Your task to perform on an android device: Open Google Chrome Image 0: 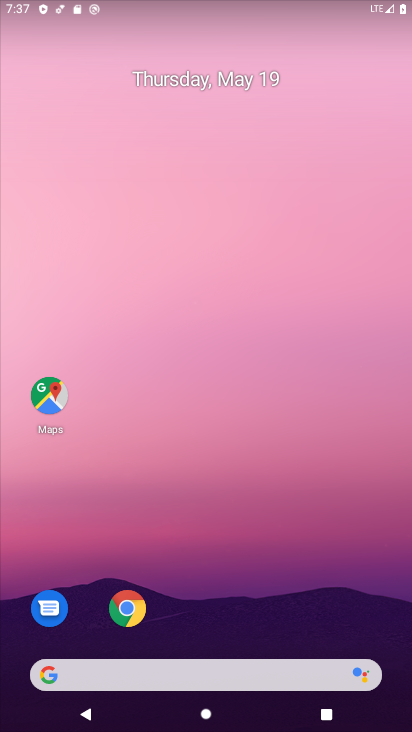
Step 0: click (129, 602)
Your task to perform on an android device: Open Google Chrome Image 1: 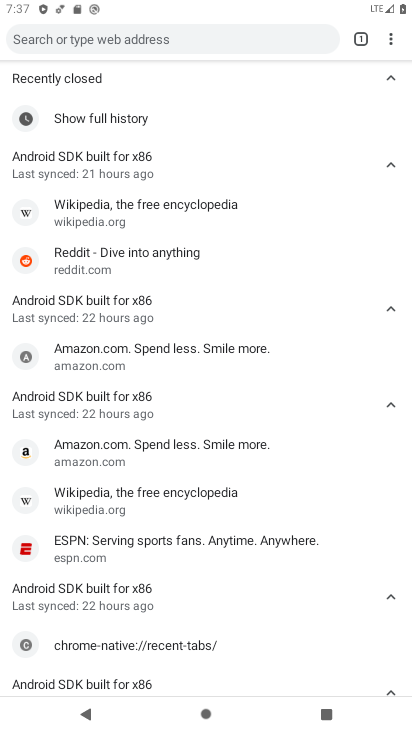
Step 1: task complete